Your task to perform on an android device: Open CNN.com Image 0: 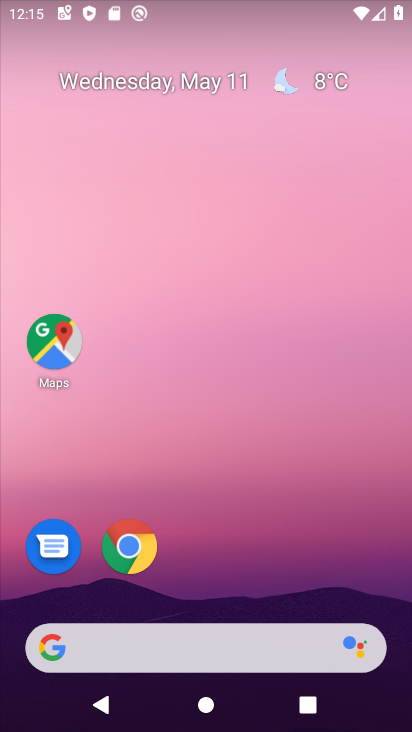
Step 0: drag from (182, 644) to (331, 156)
Your task to perform on an android device: Open CNN.com Image 1: 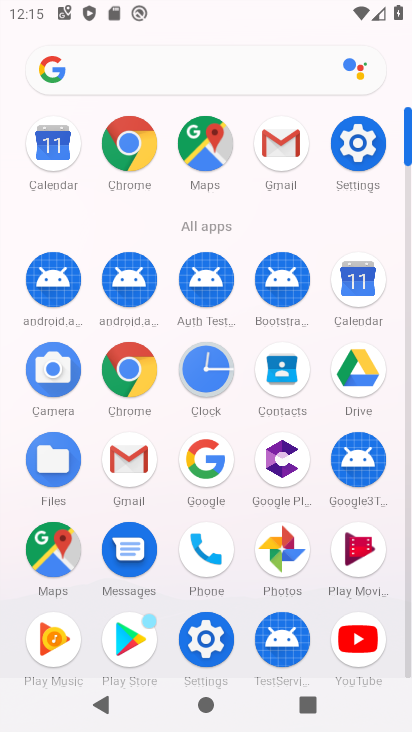
Step 1: click (138, 149)
Your task to perform on an android device: Open CNN.com Image 2: 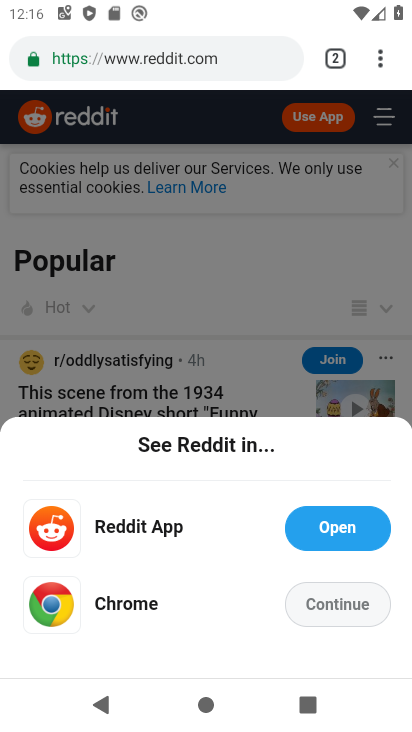
Step 2: drag from (380, 61) to (322, 113)
Your task to perform on an android device: Open CNN.com Image 3: 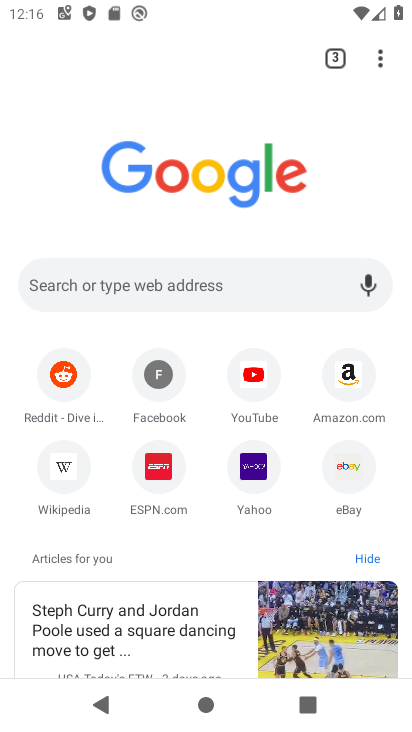
Step 3: click (166, 286)
Your task to perform on an android device: Open CNN.com Image 4: 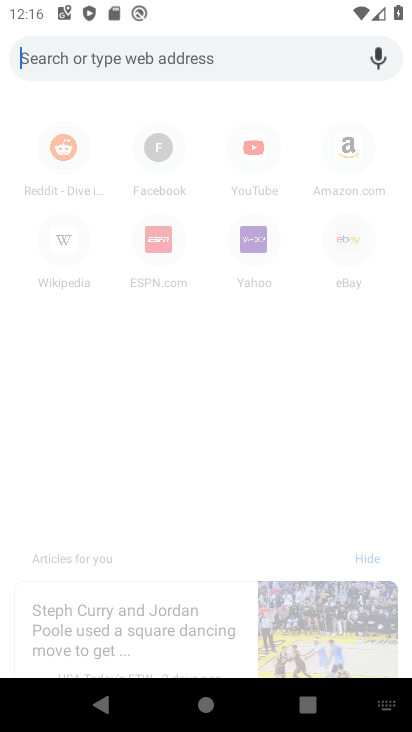
Step 4: type "cnn.com"
Your task to perform on an android device: Open CNN.com Image 5: 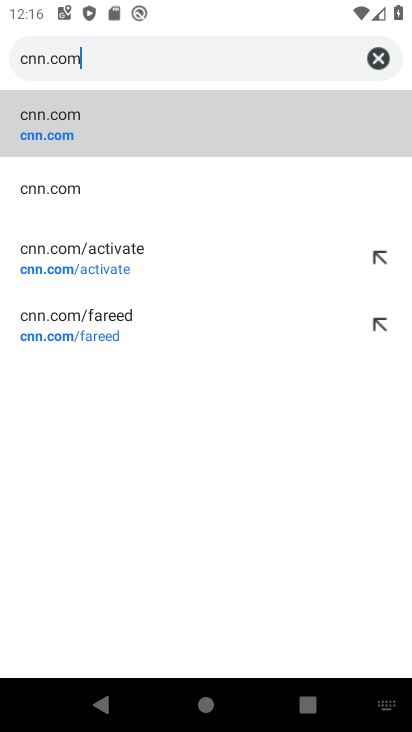
Step 5: click (35, 126)
Your task to perform on an android device: Open CNN.com Image 6: 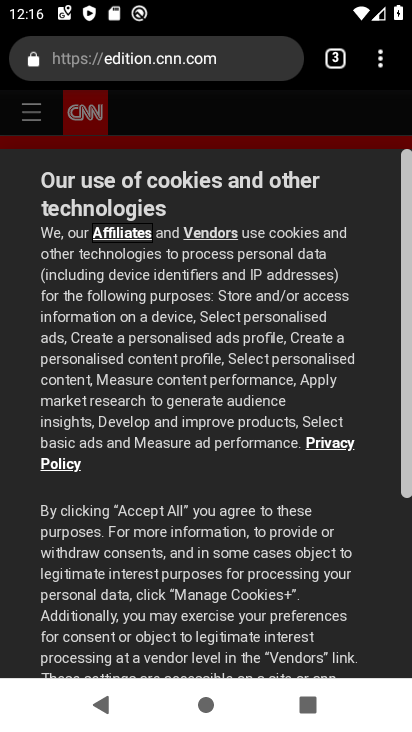
Step 6: task complete